Your task to perform on an android device: add a contact Image 0: 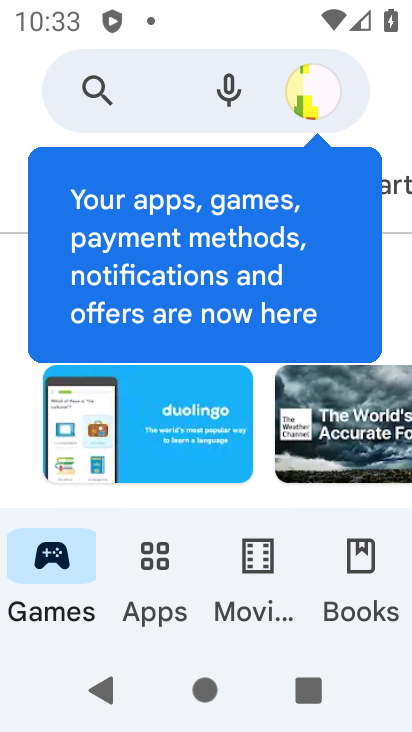
Step 0: press home button
Your task to perform on an android device: add a contact Image 1: 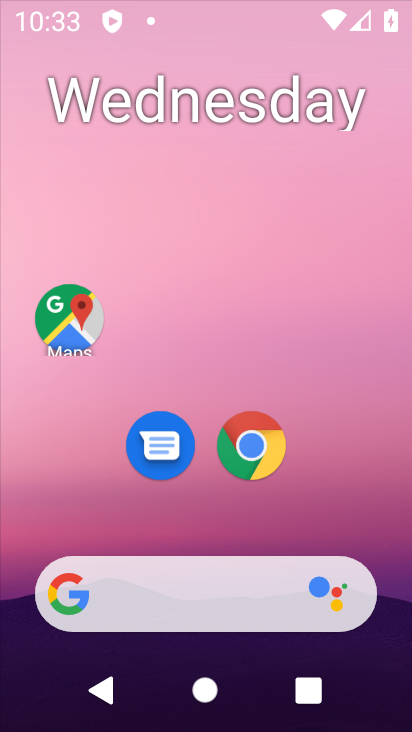
Step 1: drag from (342, 528) to (343, 179)
Your task to perform on an android device: add a contact Image 2: 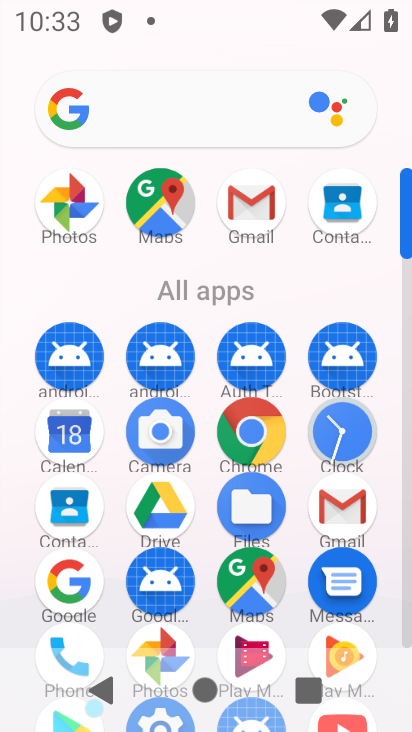
Step 2: click (68, 529)
Your task to perform on an android device: add a contact Image 3: 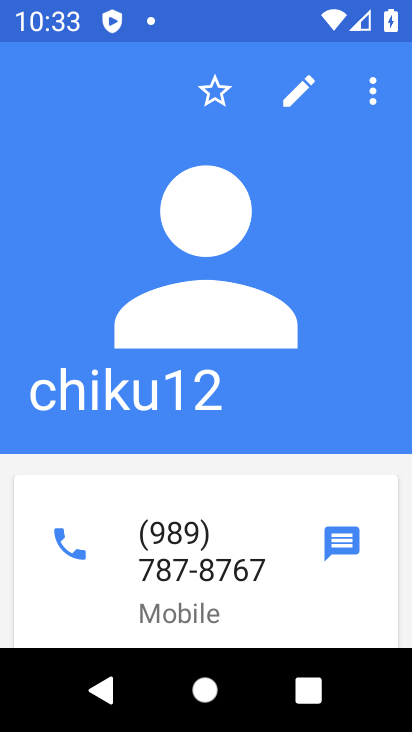
Step 3: press back button
Your task to perform on an android device: add a contact Image 4: 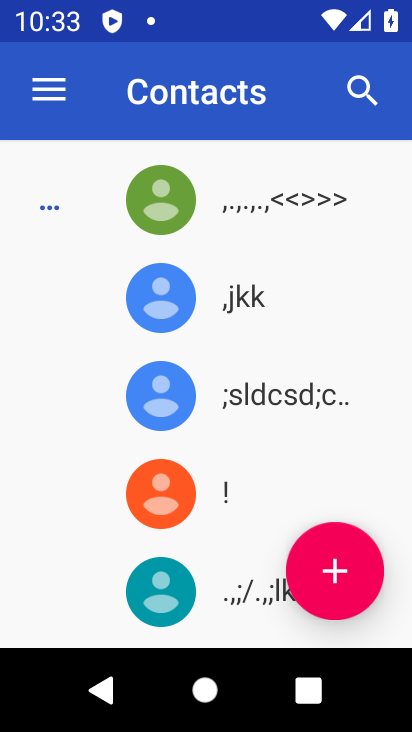
Step 4: click (338, 575)
Your task to perform on an android device: add a contact Image 5: 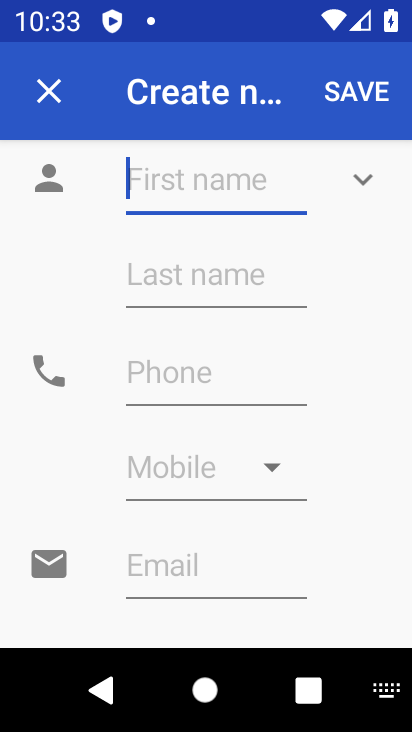
Step 5: type "chiku13"
Your task to perform on an android device: add a contact Image 6: 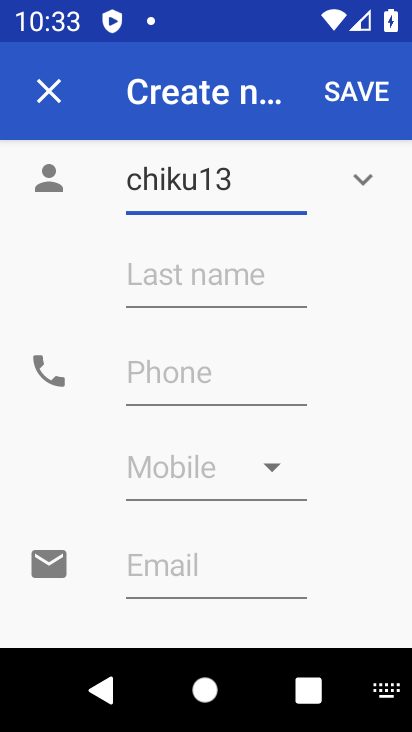
Step 6: click (186, 381)
Your task to perform on an android device: add a contact Image 7: 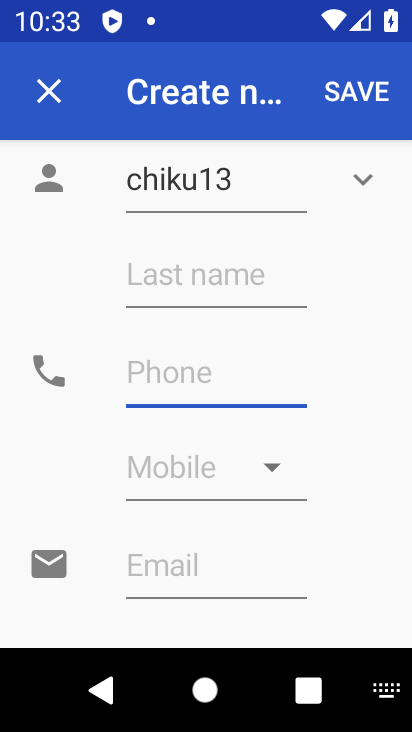
Step 7: type "76576876786"
Your task to perform on an android device: add a contact Image 8: 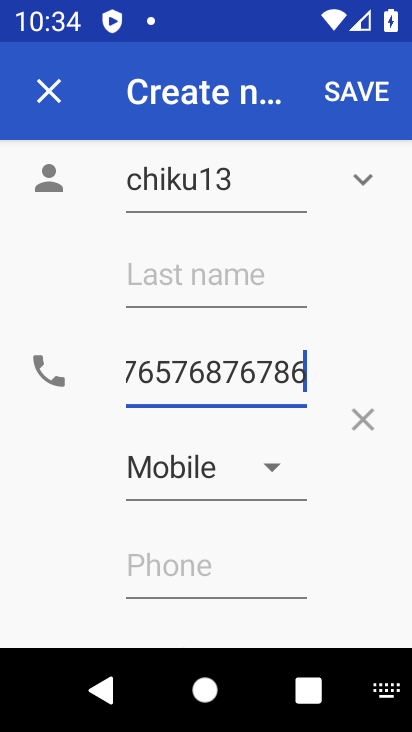
Step 8: click (358, 93)
Your task to perform on an android device: add a contact Image 9: 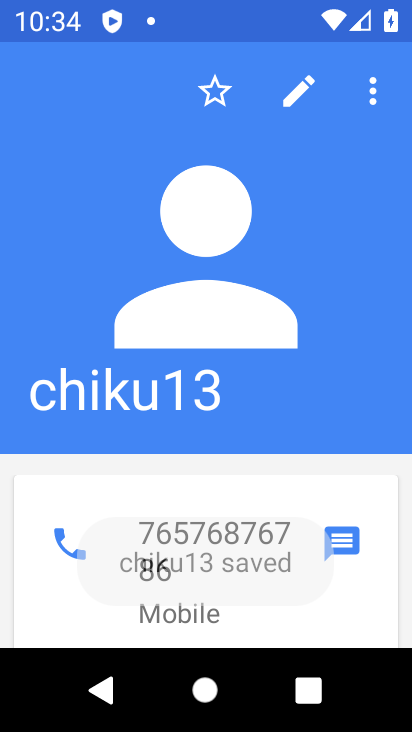
Step 9: task complete